Your task to perform on an android device: turn on javascript in the chrome app Image 0: 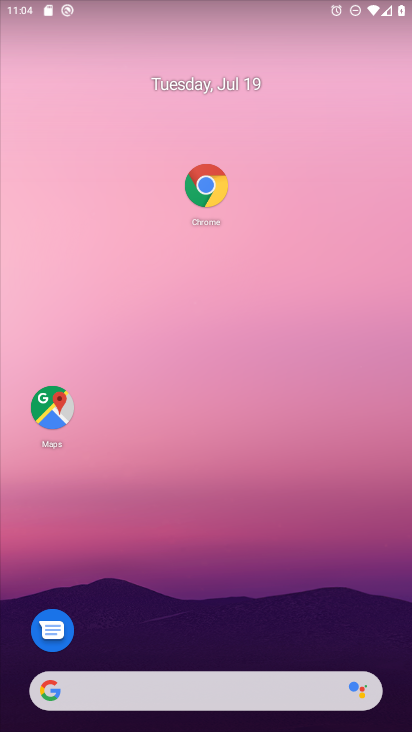
Step 0: drag from (280, 114) to (352, 24)
Your task to perform on an android device: turn on javascript in the chrome app Image 1: 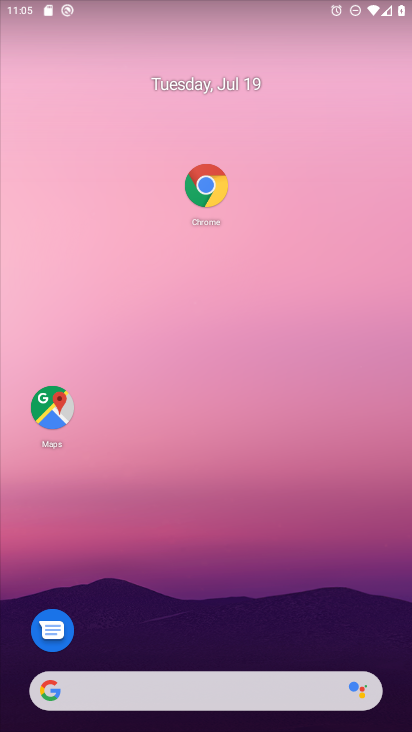
Step 1: drag from (196, 636) to (285, 45)
Your task to perform on an android device: turn on javascript in the chrome app Image 2: 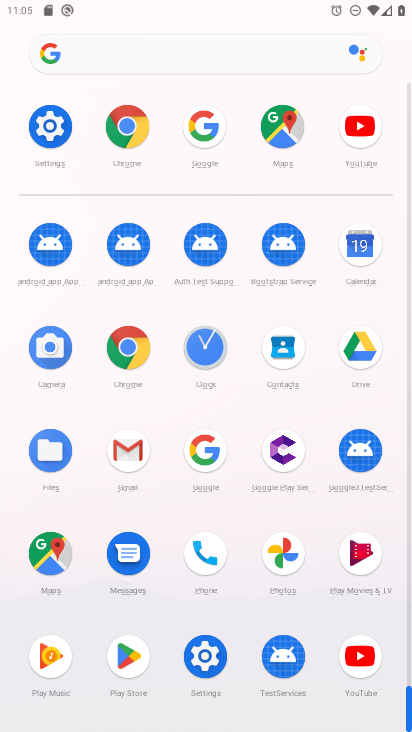
Step 2: click (132, 145)
Your task to perform on an android device: turn on javascript in the chrome app Image 3: 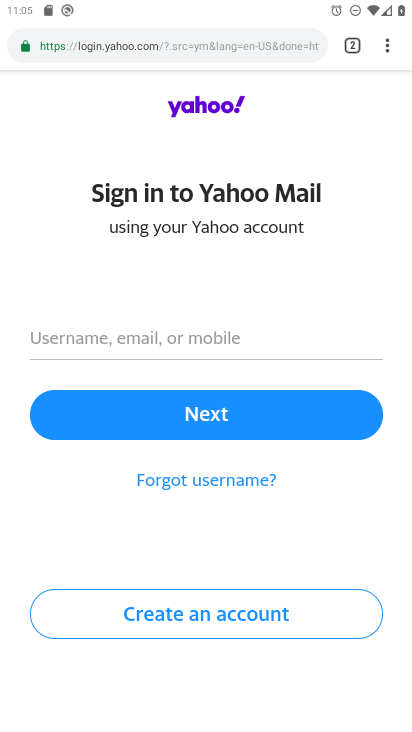
Step 3: click (387, 48)
Your task to perform on an android device: turn on javascript in the chrome app Image 4: 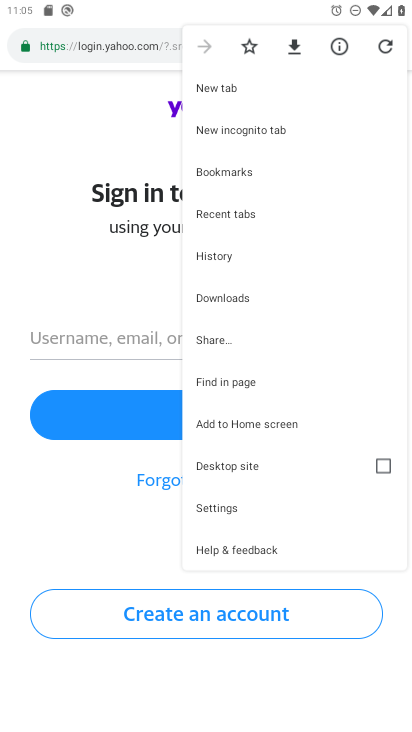
Step 4: click (233, 518)
Your task to perform on an android device: turn on javascript in the chrome app Image 5: 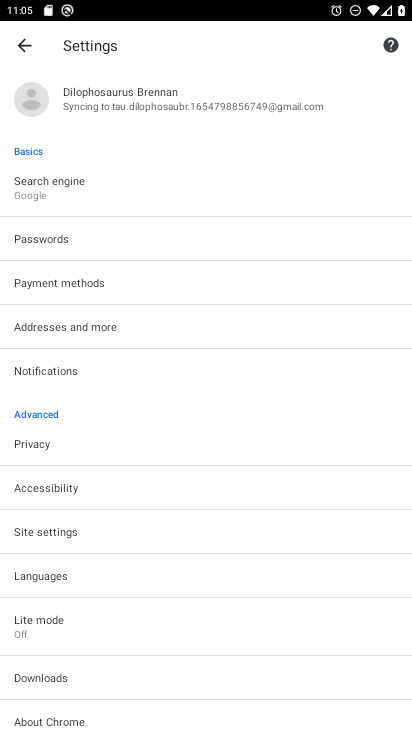
Step 5: drag from (136, 581) to (137, 411)
Your task to perform on an android device: turn on javascript in the chrome app Image 6: 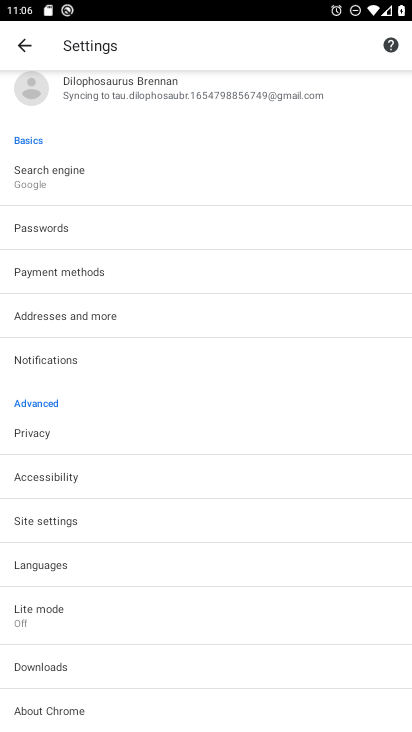
Step 6: drag from (71, 635) to (160, 447)
Your task to perform on an android device: turn on javascript in the chrome app Image 7: 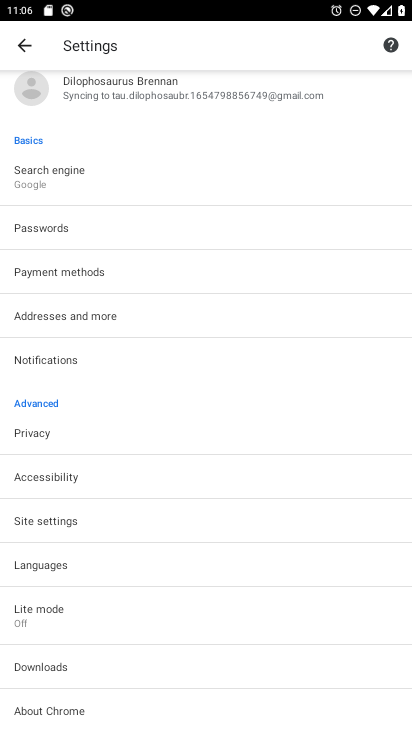
Step 7: click (30, 516)
Your task to perform on an android device: turn on javascript in the chrome app Image 8: 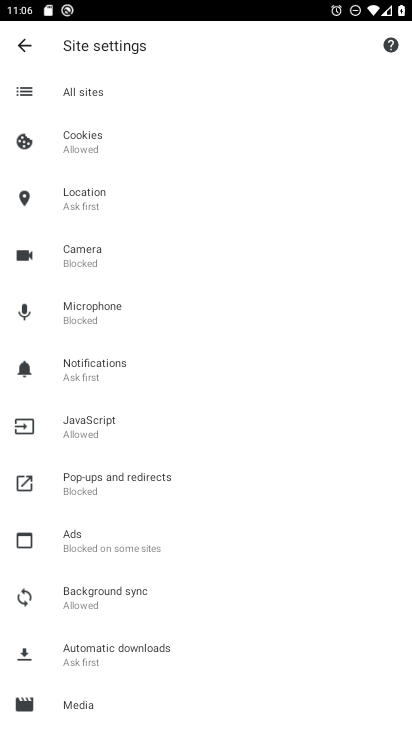
Step 8: click (125, 427)
Your task to perform on an android device: turn on javascript in the chrome app Image 9: 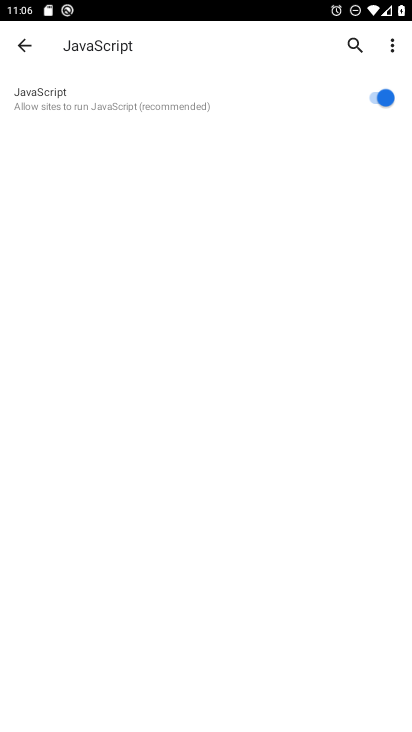
Step 9: task complete